Your task to perform on an android device: Turn off the flashlight Image 0: 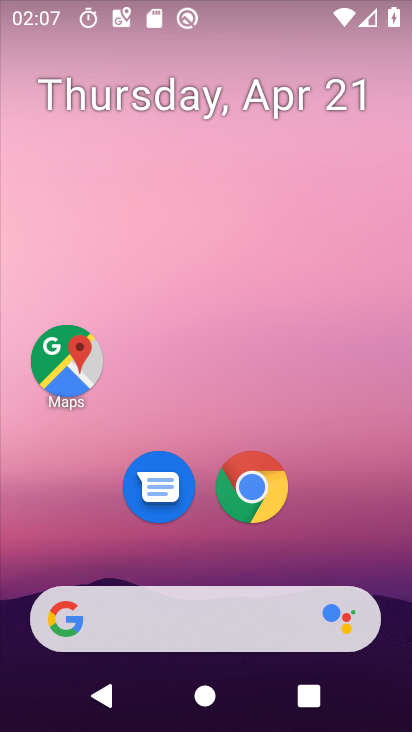
Step 0: drag from (204, 557) to (186, 286)
Your task to perform on an android device: Turn off the flashlight Image 1: 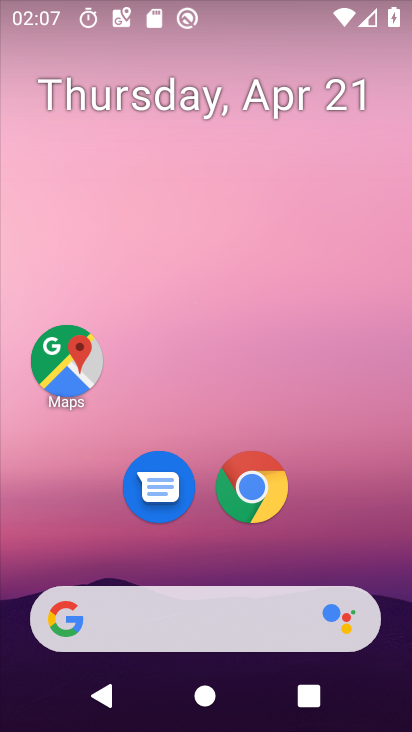
Step 1: drag from (212, 573) to (205, 227)
Your task to perform on an android device: Turn off the flashlight Image 2: 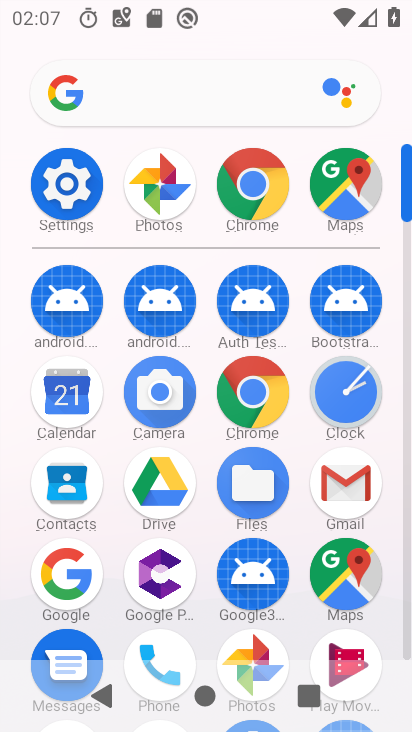
Step 2: click (58, 190)
Your task to perform on an android device: Turn off the flashlight Image 3: 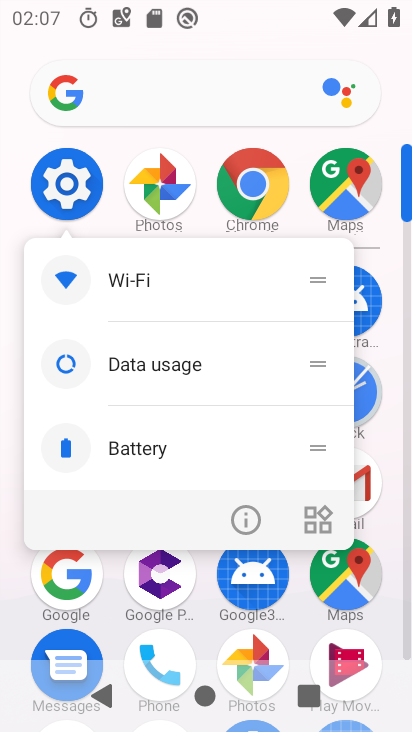
Step 3: click (258, 527)
Your task to perform on an android device: Turn off the flashlight Image 4: 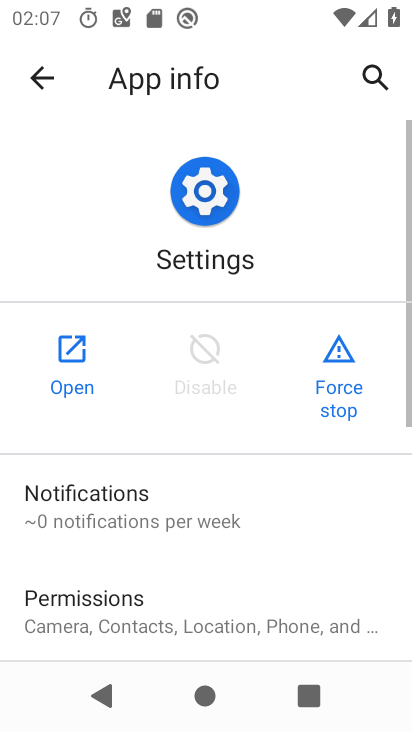
Step 4: click (73, 330)
Your task to perform on an android device: Turn off the flashlight Image 5: 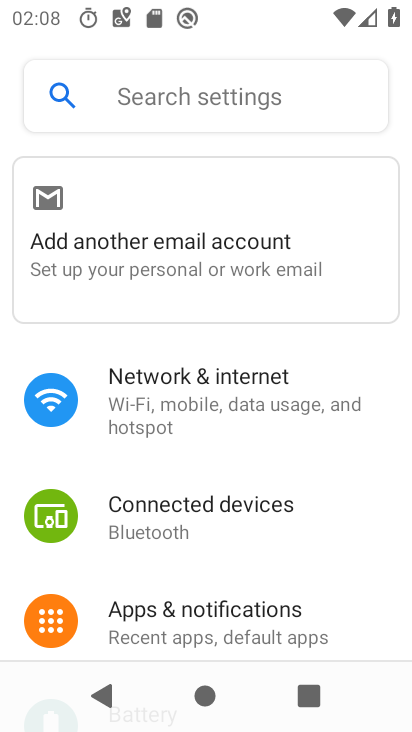
Step 5: click (244, 106)
Your task to perform on an android device: Turn off the flashlight Image 6: 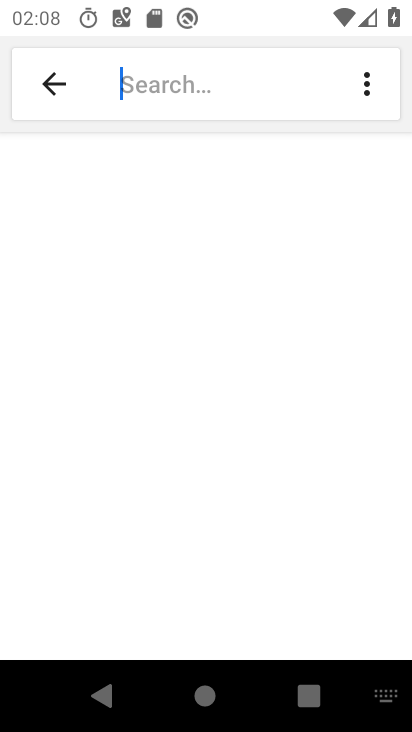
Step 6: type "flashlight"
Your task to perform on an android device: Turn off the flashlight Image 7: 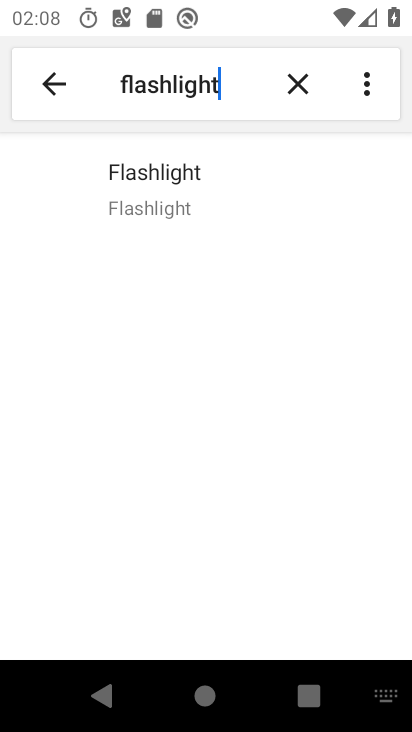
Step 7: click (265, 192)
Your task to perform on an android device: Turn off the flashlight Image 8: 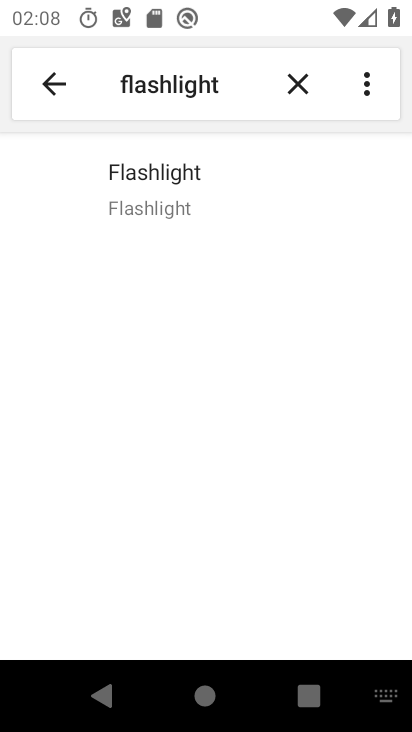
Step 8: task complete